Your task to perform on an android device: Go to Android settings Image 0: 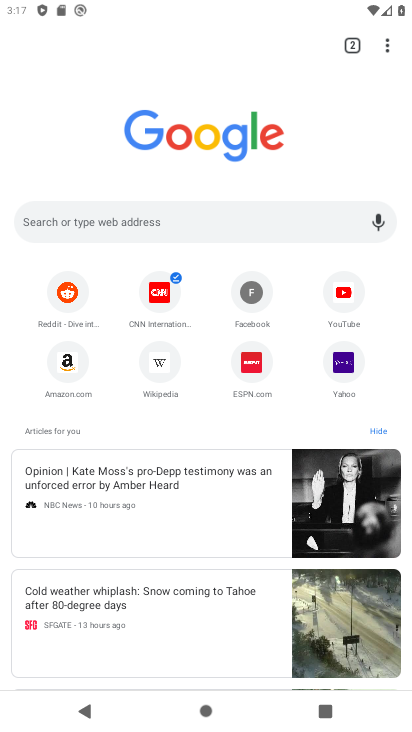
Step 0: click (396, 45)
Your task to perform on an android device: Go to Android settings Image 1: 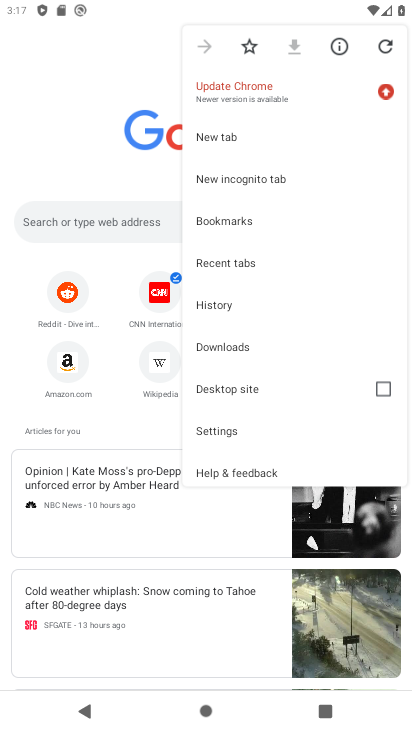
Step 1: press home button
Your task to perform on an android device: Go to Android settings Image 2: 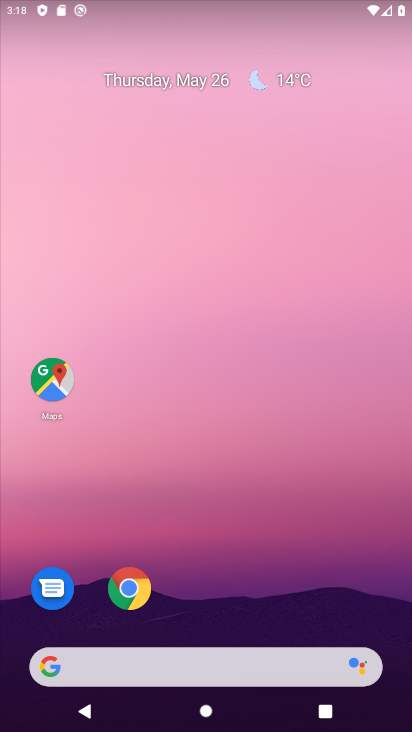
Step 2: drag from (254, 605) to (271, 163)
Your task to perform on an android device: Go to Android settings Image 3: 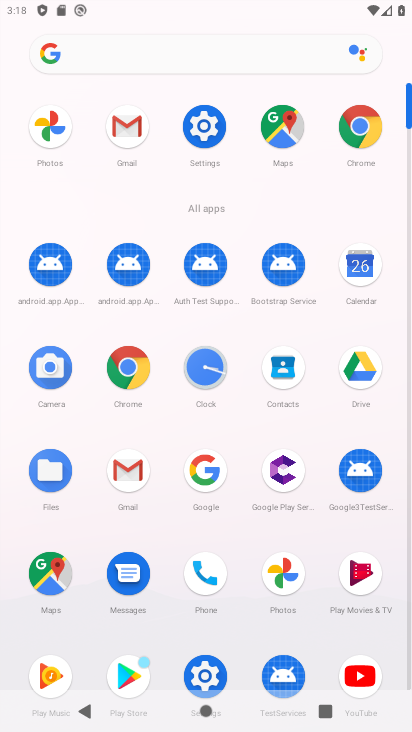
Step 3: click (204, 144)
Your task to perform on an android device: Go to Android settings Image 4: 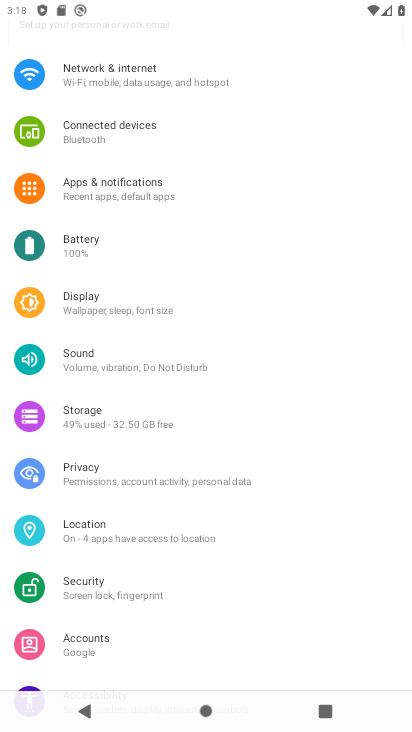
Step 4: task complete